Your task to perform on an android device: When is my next meeting? Image 0: 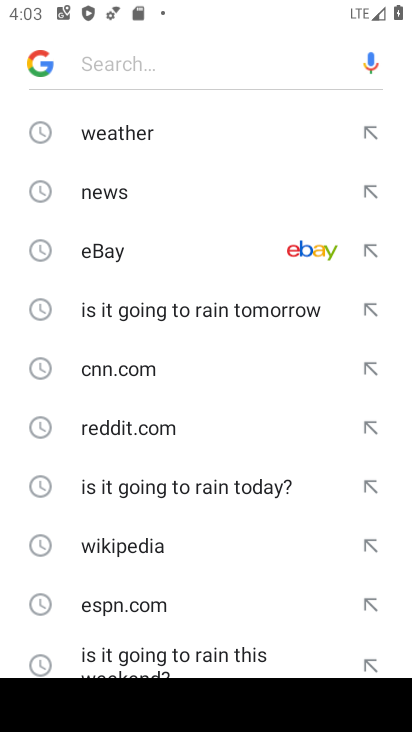
Step 0: press home button
Your task to perform on an android device: When is my next meeting? Image 1: 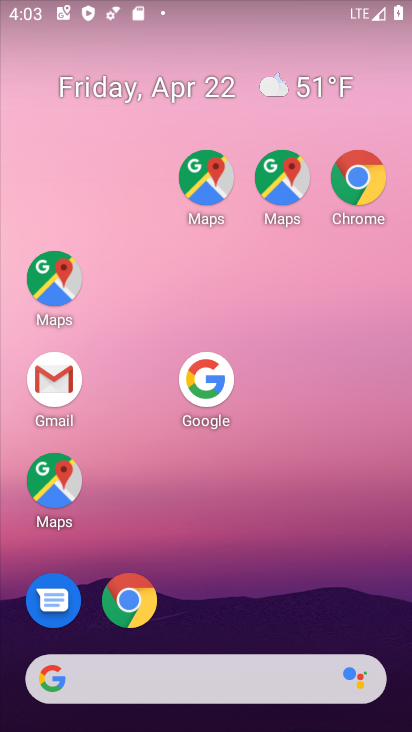
Step 1: drag from (293, 597) to (255, 112)
Your task to perform on an android device: When is my next meeting? Image 2: 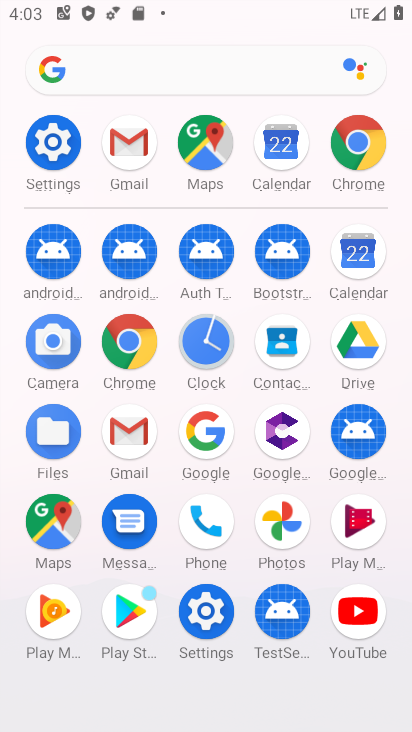
Step 2: drag from (217, 285) to (183, 45)
Your task to perform on an android device: When is my next meeting? Image 3: 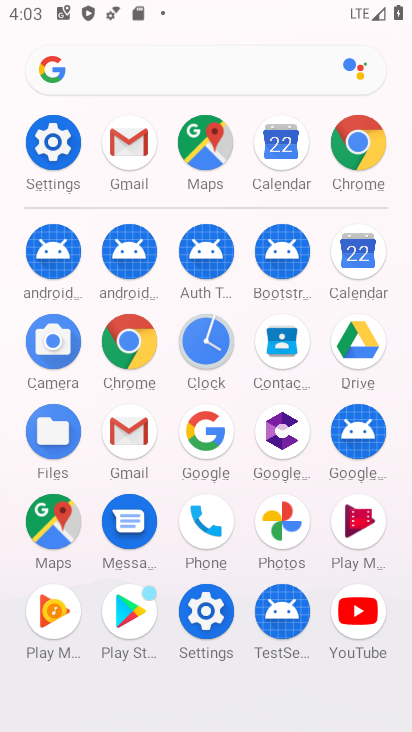
Step 3: click (350, 259)
Your task to perform on an android device: When is my next meeting? Image 4: 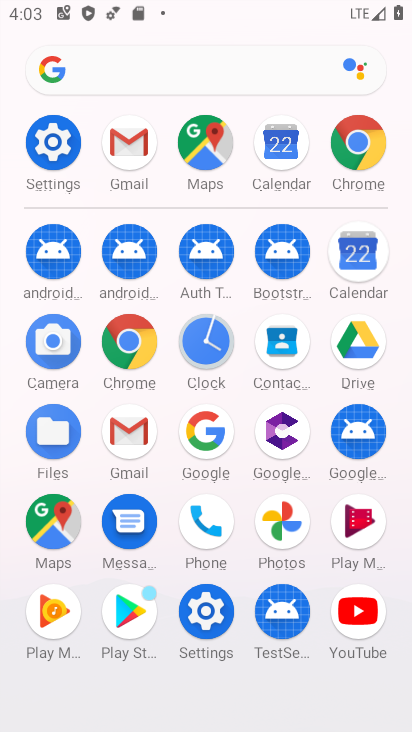
Step 4: click (350, 259)
Your task to perform on an android device: When is my next meeting? Image 5: 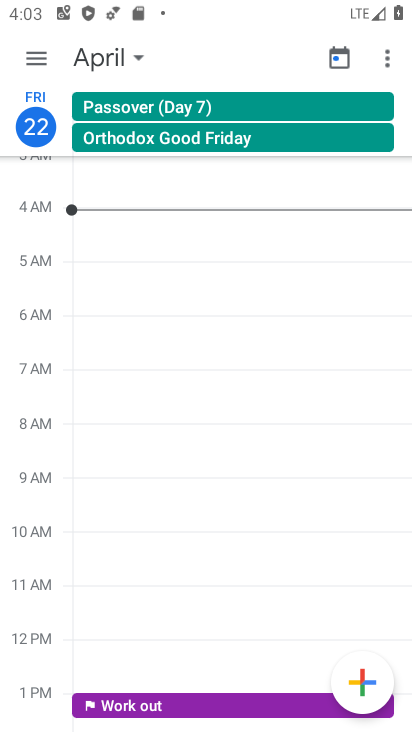
Step 5: drag from (240, 497) to (172, 14)
Your task to perform on an android device: When is my next meeting? Image 6: 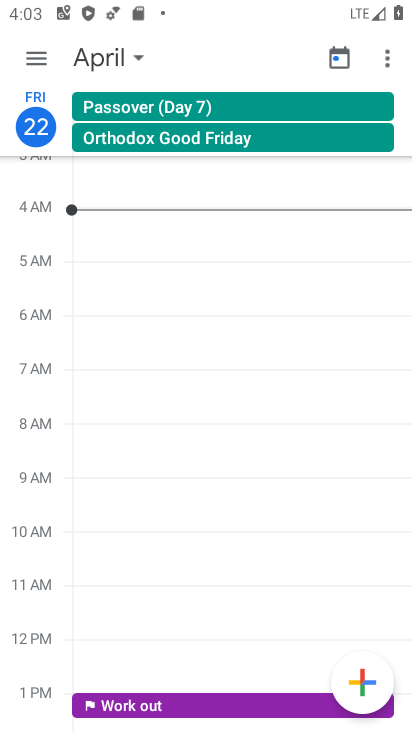
Step 6: drag from (182, 341) to (135, 36)
Your task to perform on an android device: When is my next meeting? Image 7: 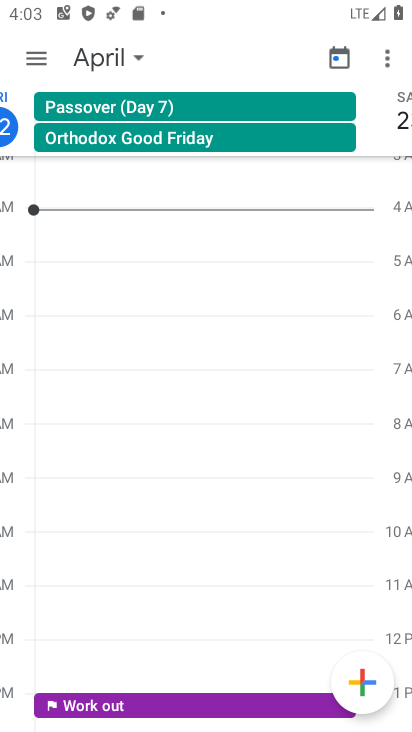
Step 7: drag from (340, 348) to (12, 370)
Your task to perform on an android device: When is my next meeting? Image 8: 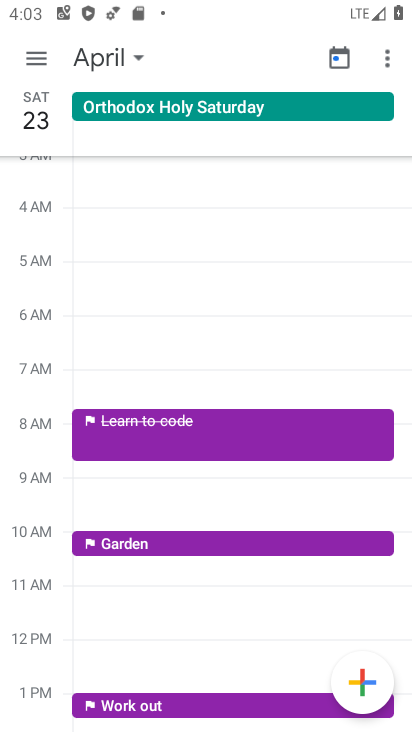
Step 8: drag from (245, 397) to (17, 400)
Your task to perform on an android device: When is my next meeting? Image 9: 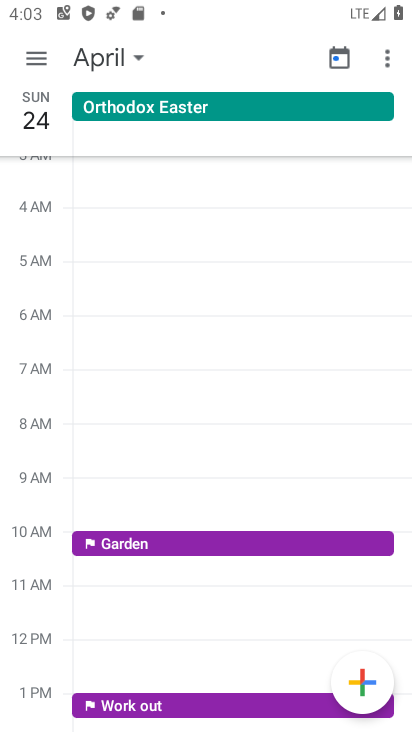
Step 9: drag from (144, 499) to (102, 3)
Your task to perform on an android device: When is my next meeting? Image 10: 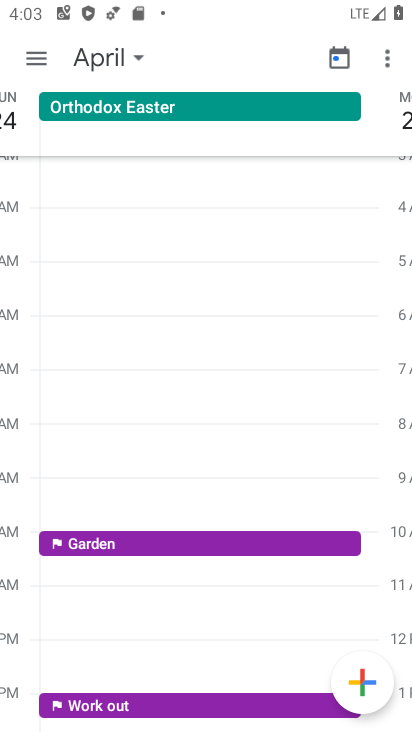
Step 10: drag from (210, 405) to (161, 79)
Your task to perform on an android device: When is my next meeting? Image 11: 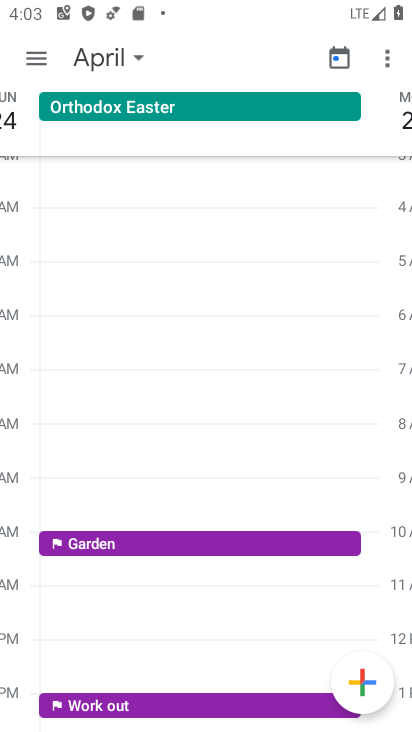
Step 11: drag from (223, 467) to (210, 80)
Your task to perform on an android device: When is my next meeting? Image 12: 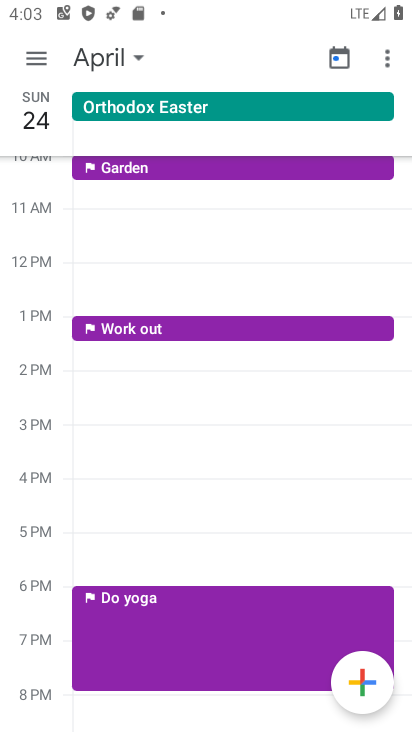
Step 12: drag from (174, 550) to (136, 85)
Your task to perform on an android device: When is my next meeting? Image 13: 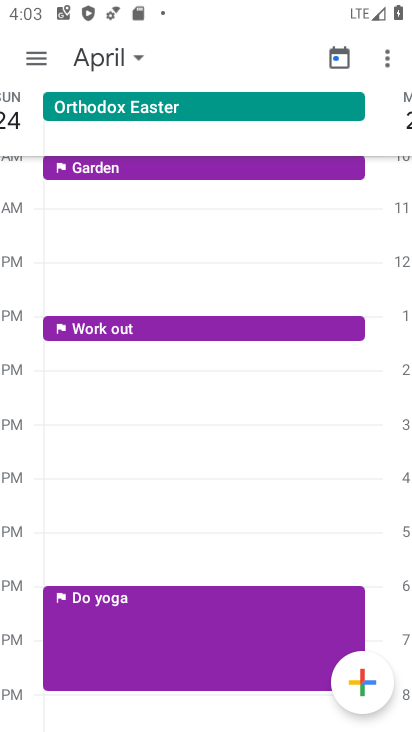
Step 13: drag from (149, 404) to (210, 28)
Your task to perform on an android device: When is my next meeting? Image 14: 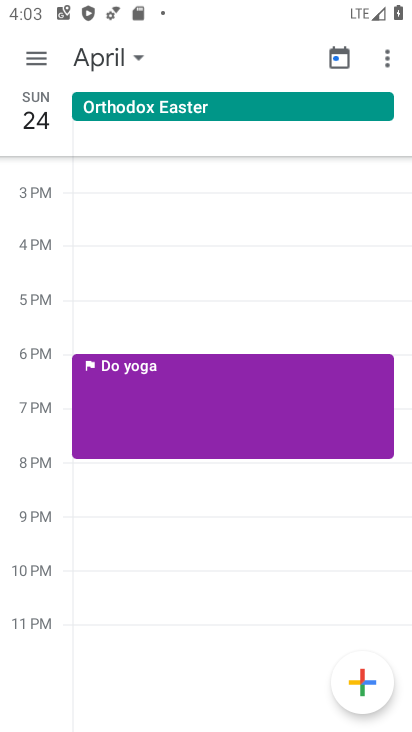
Step 14: drag from (161, 471) to (191, 57)
Your task to perform on an android device: When is my next meeting? Image 15: 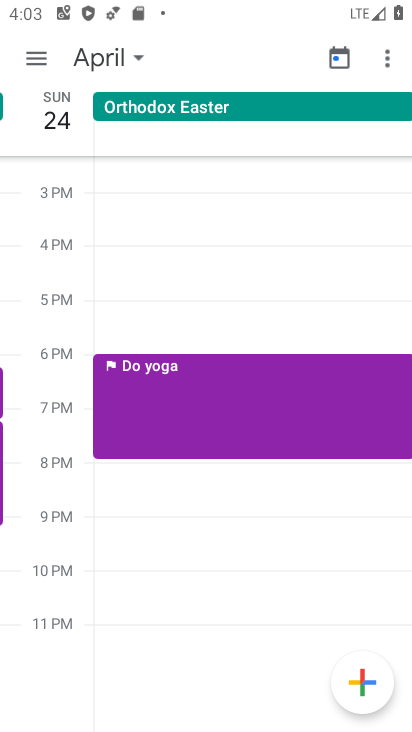
Step 15: drag from (259, 583) to (274, 148)
Your task to perform on an android device: When is my next meeting? Image 16: 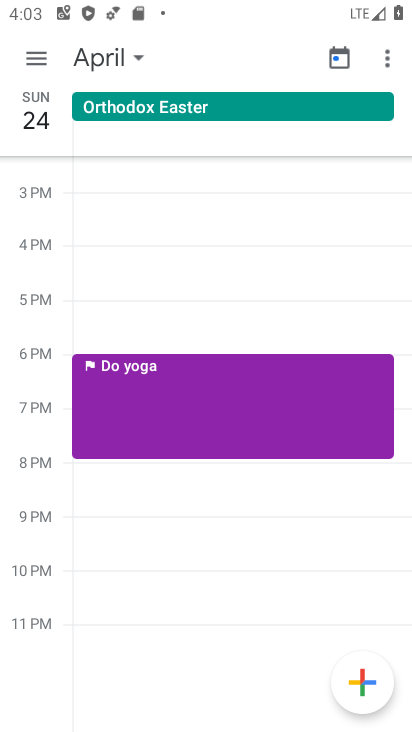
Step 16: drag from (239, 449) to (221, 70)
Your task to perform on an android device: When is my next meeting? Image 17: 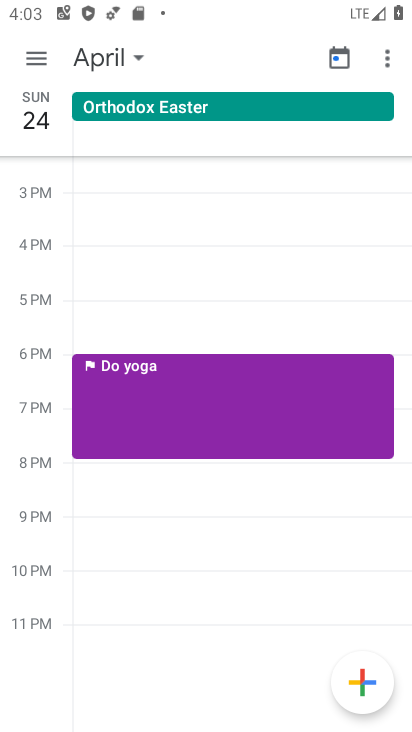
Step 17: drag from (241, 543) to (193, 81)
Your task to perform on an android device: When is my next meeting? Image 18: 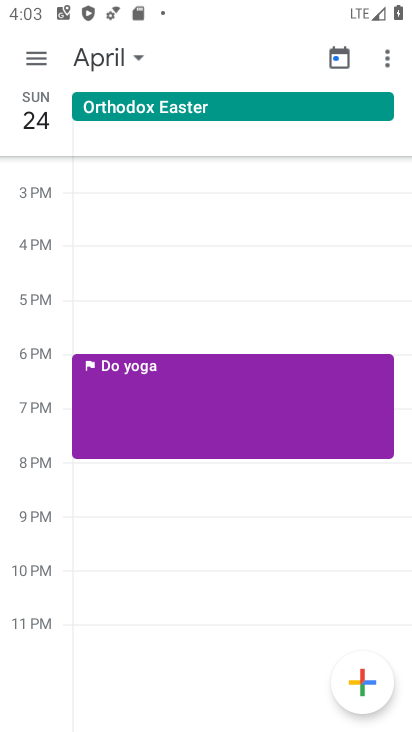
Step 18: drag from (171, 378) to (142, 60)
Your task to perform on an android device: When is my next meeting? Image 19: 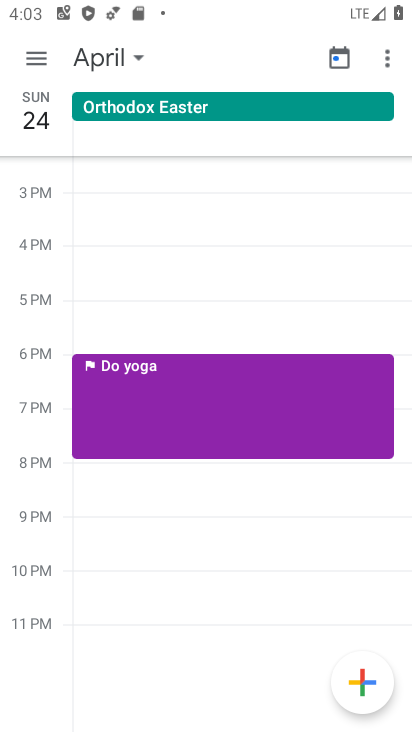
Step 19: drag from (163, 315) to (141, 61)
Your task to perform on an android device: When is my next meeting? Image 20: 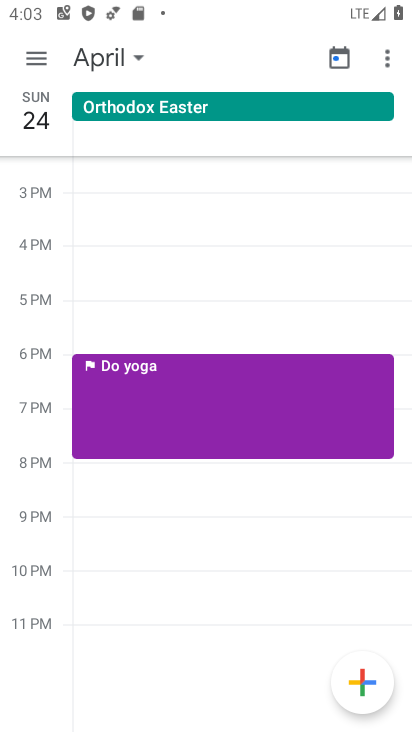
Step 20: drag from (193, 625) to (124, 131)
Your task to perform on an android device: When is my next meeting? Image 21: 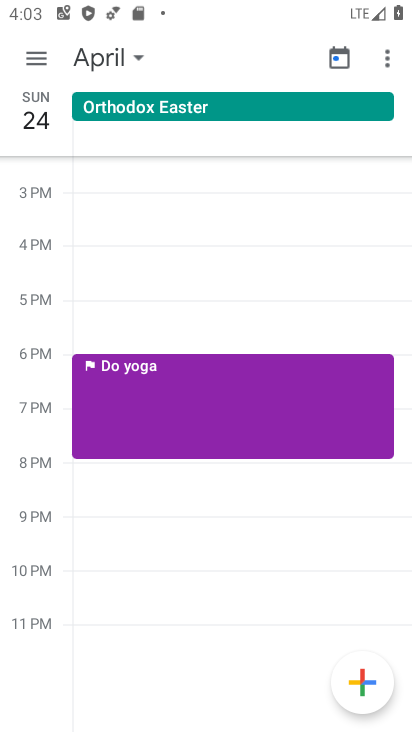
Step 21: drag from (189, 580) to (149, 71)
Your task to perform on an android device: When is my next meeting? Image 22: 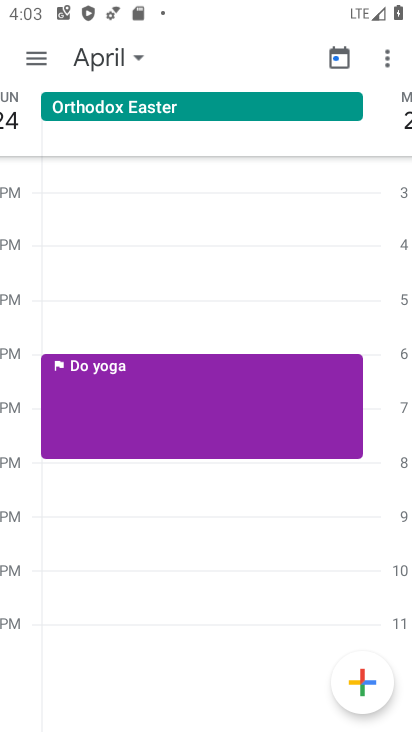
Step 22: drag from (170, 524) to (118, 3)
Your task to perform on an android device: When is my next meeting? Image 23: 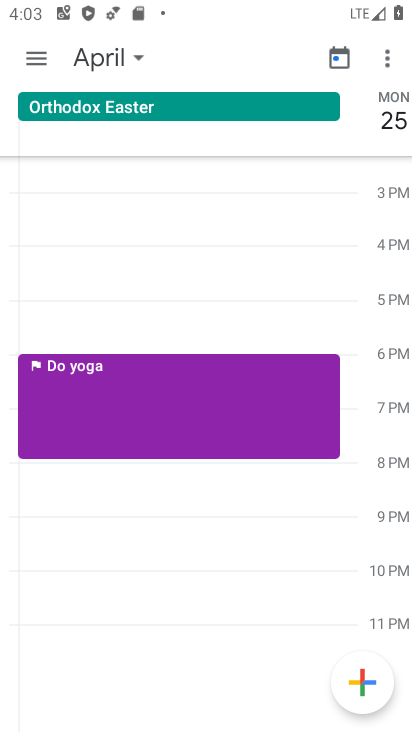
Step 23: drag from (157, 314) to (126, 31)
Your task to perform on an android device: When is my next meeting? Image 24: 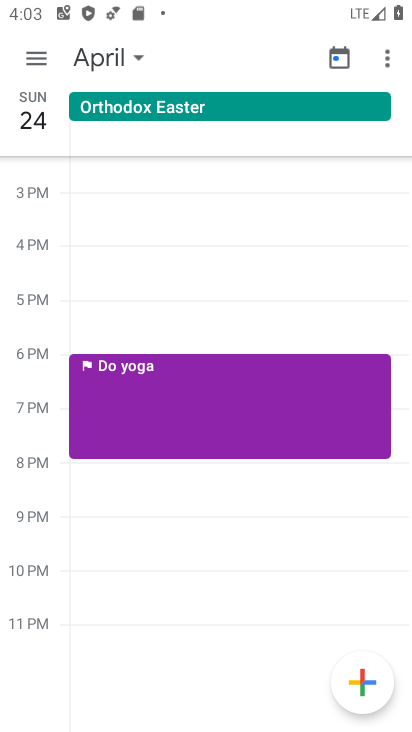
Step 24: drag from (178, 570) to (89, 104)
Your task to perform on an android device: When is my next meeting? Image 25: 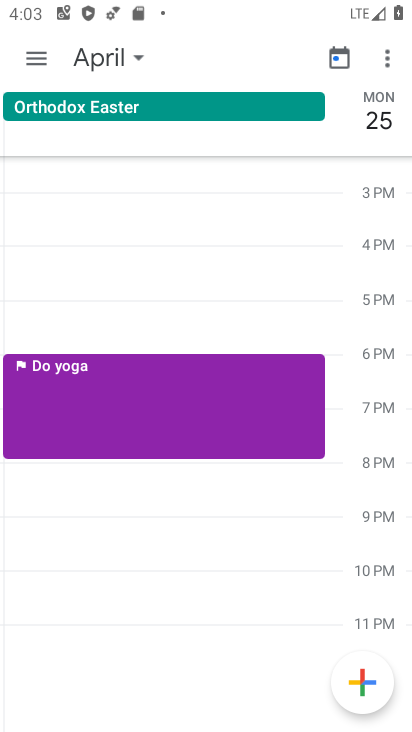
Step 25: drag from (138, 403) to (89, 11)
Your task to perform on an android device: When is my next meeting? Image 26: 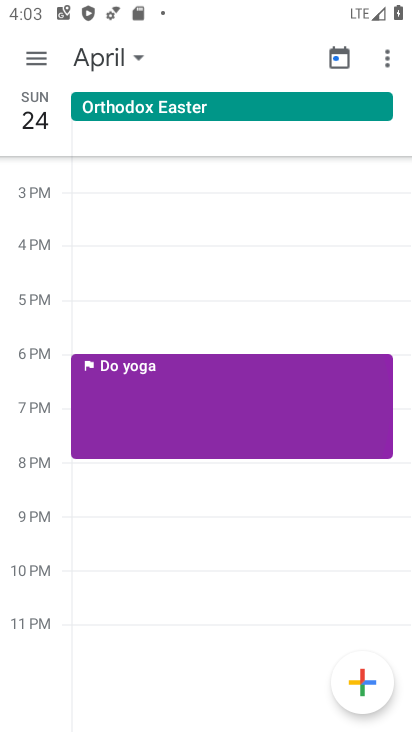
Step 26: drag from (180, 400) to (112, 65)
Your task to perform on an android device: When is my next meeting? Image 27: 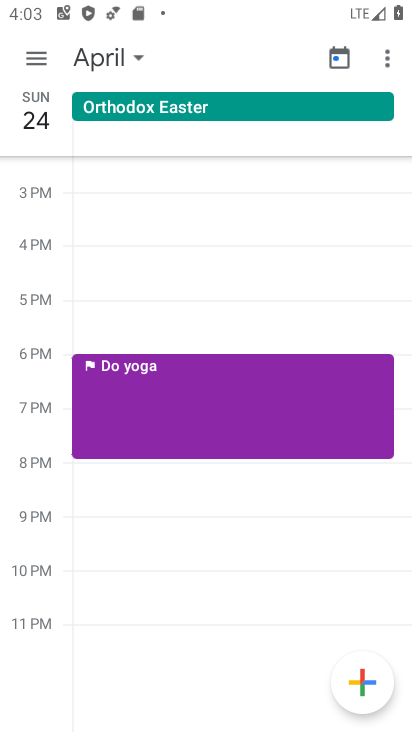
Step 27: drag from (141, 275) to (141, 119)
Your task to perform on an android device: When is my next meeting? Image 28: 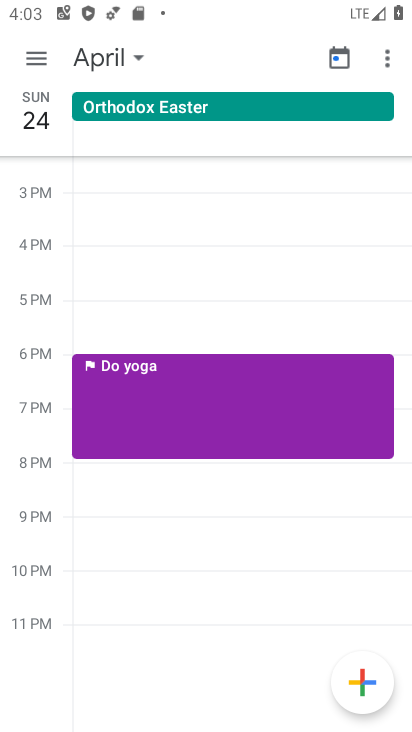
Step 28: drag from (116, 197) to (133, 455)
Your task to perform on an android device: When is my next meeting? Image 29: 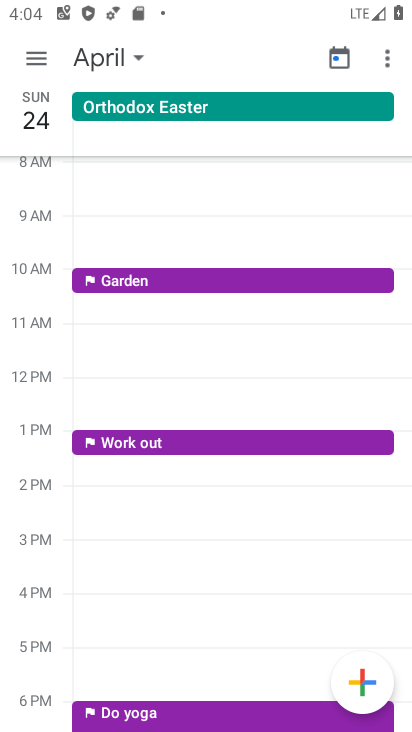
Step 29: click (40, 58)
Your task to perform on an android device: When is my next meeting? Image 30: 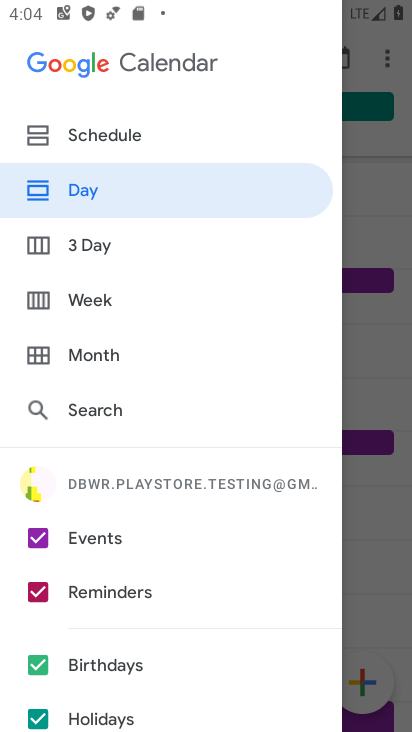
Step 30: drag from (165, 580) to (169, 171)
Your task to perform on an android device: When is my next meeting? Image 31: 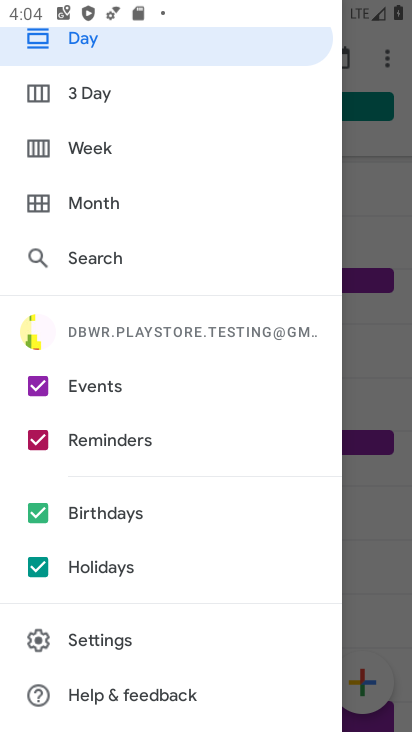
Step 31: click (383, 350)
Your task to perform on an android device: When is my next meeting? Image 32: 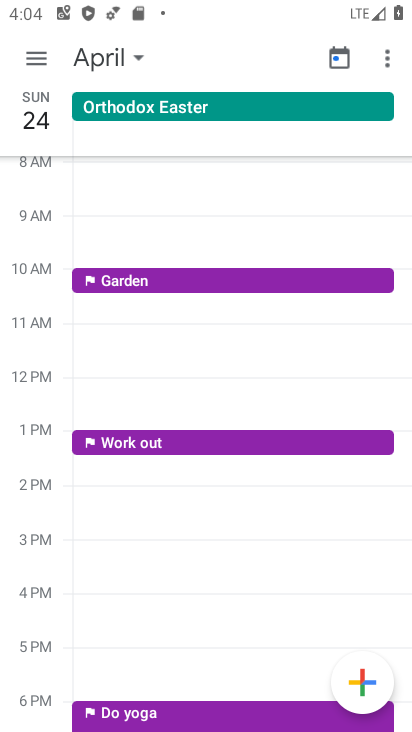
Step 32: click (386, 66)
Your task to perform on an android device: When is my next meeting? Image 33: 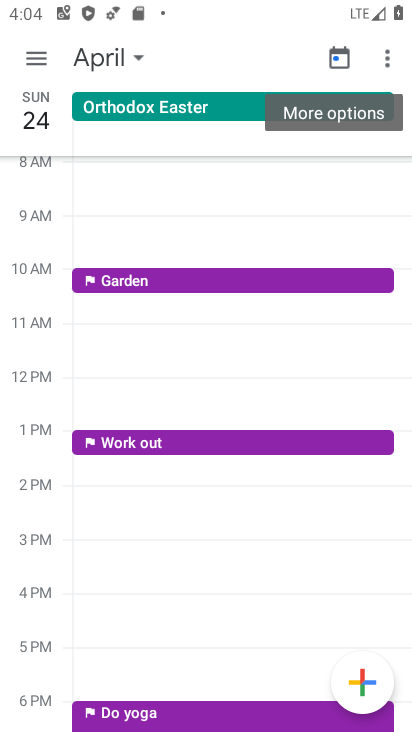
Step 33: click (386, 66)
Your task to perform on an android device: When is my next meeting? Image 34: 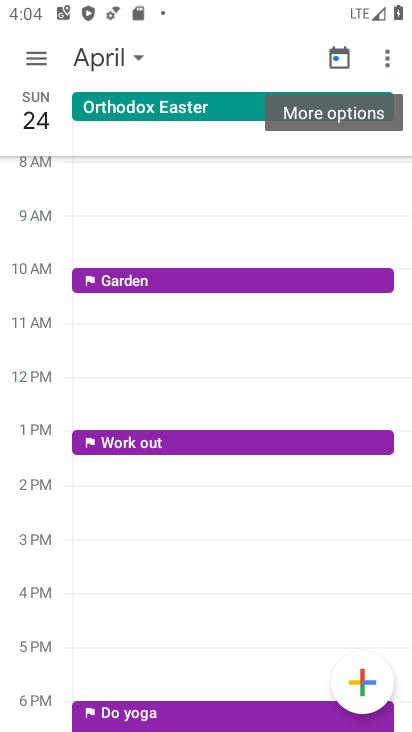
Step 34: click (386, 66)
Your task to perform on an android device: When is my next meeting? Image 35: 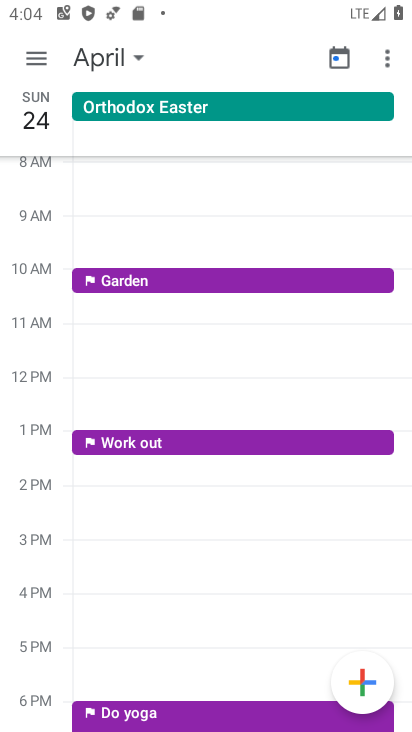
Step 35: click (386, 66)
Your task to perform on an android device: When is my next meeting? Image 36: 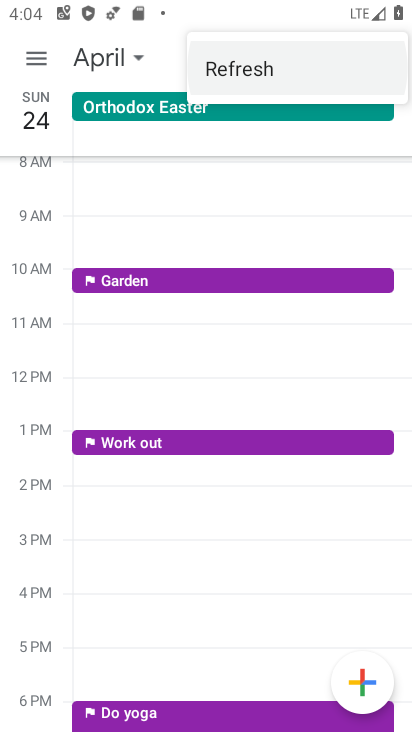
Step 36: click (386, 66)
Your task to perform on an android device: When is my next meeting? Image 37: 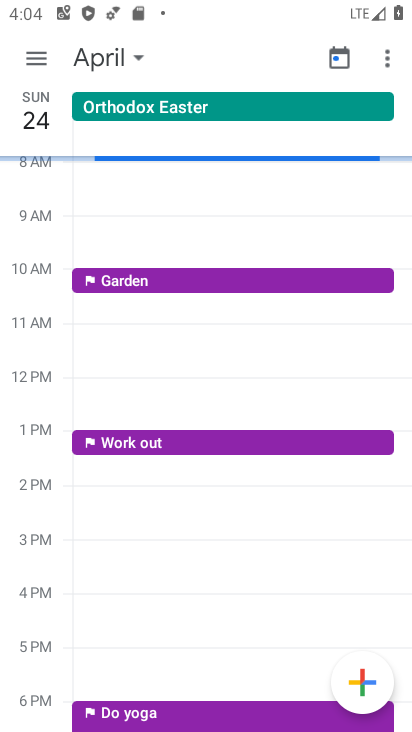
Step 37: click (340, 68)
Your task to perform on an android device: When is my next meeting? Image 38: 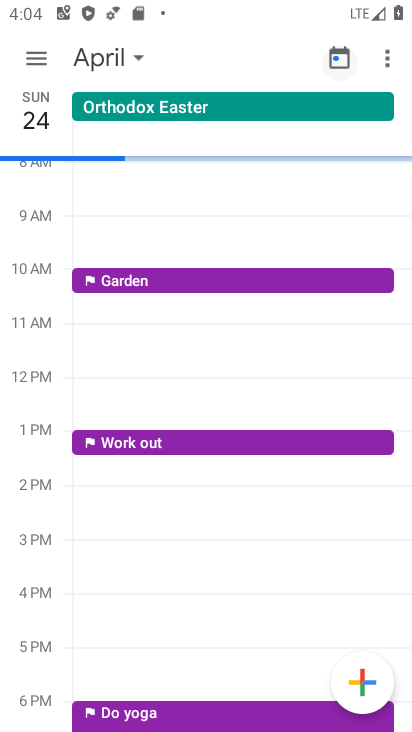
Step 38: click (339, 69)
Your task to perform on an android device: When is my next meeting? Image 39: 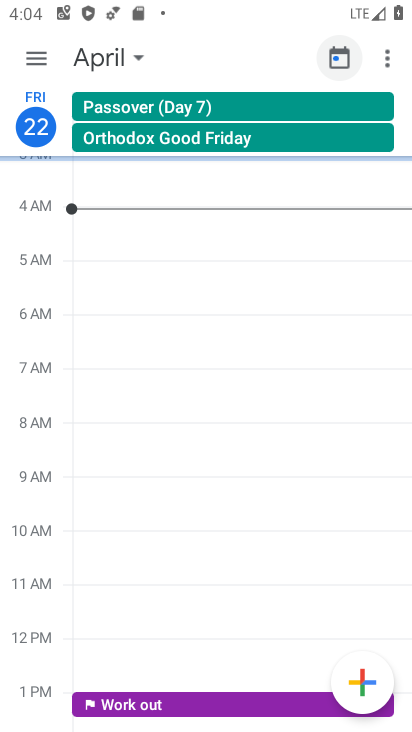
Step 39: click (339, 70)
Your task to perform on an android device: When is my next meeting? Image 40: 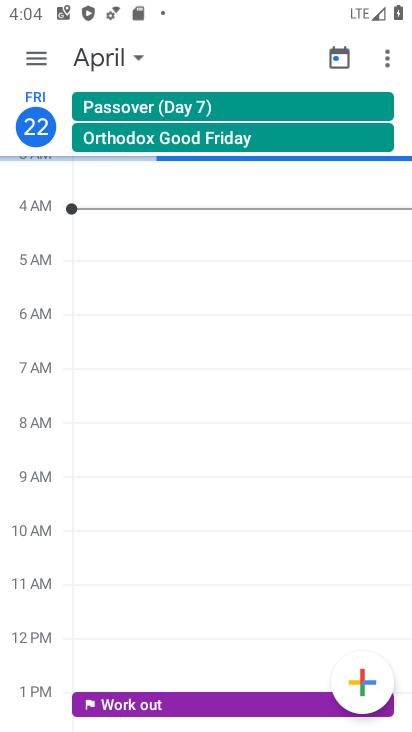
Step 40: click (339, 71)
Your task to perform on an android device: When is my next meeting? Image 41: 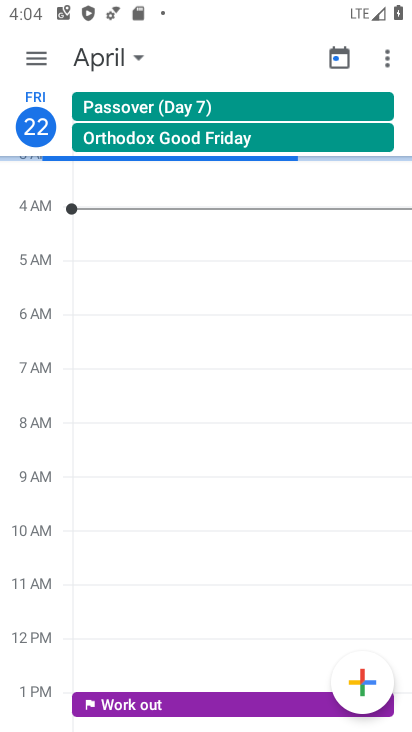
Step 41: click (338, 60)
Your task to perform on an android device: When is my next meeting? Image 42: 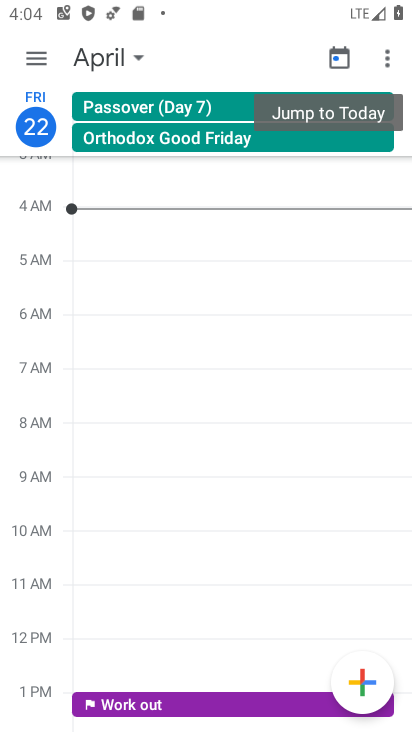
Step 42: click (42, 46)
Your task to perform on an android device: When is my next meeting? Image 43: 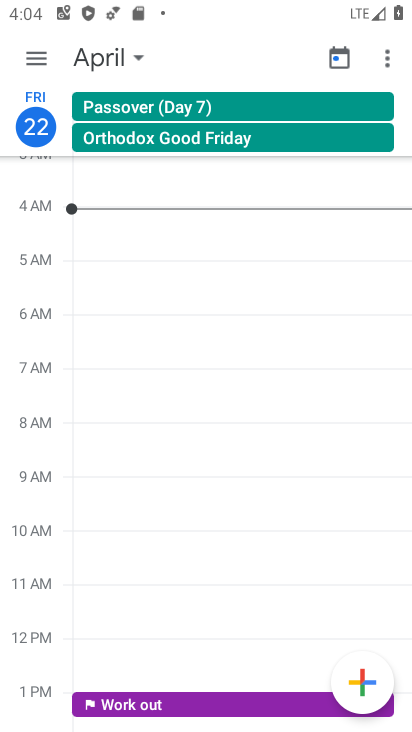
Step 43: click (46, 46)
Your task to perform on an android device: When is my next meeting? Image 44: 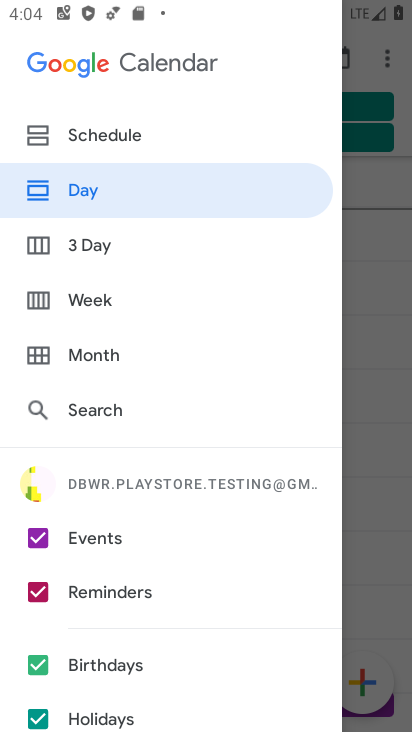
Step 44: click (94, 142)
Your task to perform on an android device: When is my next meeting? Image 45: 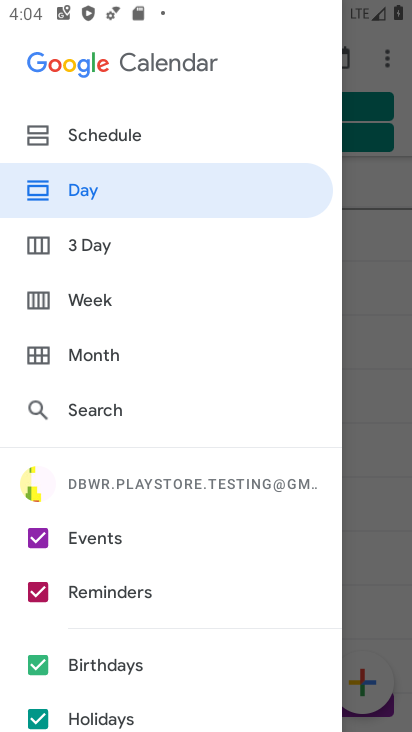
Step 45: click (94, 135)
Your task to perform on an android device: When is my next meeting? Image 46: 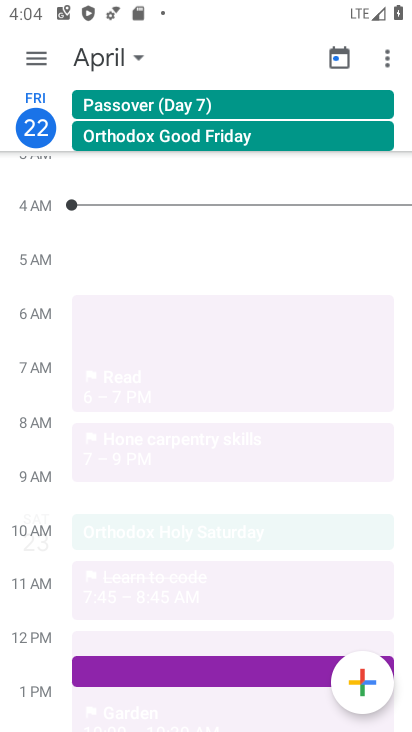
Step 46: click (95, 132)
Your task to perform on an android device: When is my next meeting? Image 47: 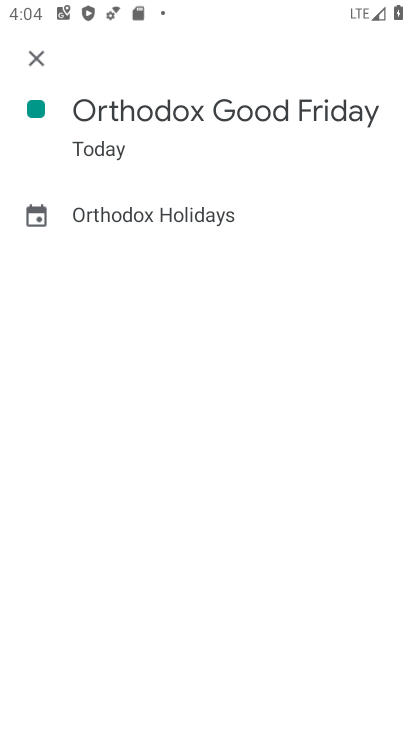
Step 47: click (31, 58)
Your task to perform on an android device: When is my next meeting? Image 48: 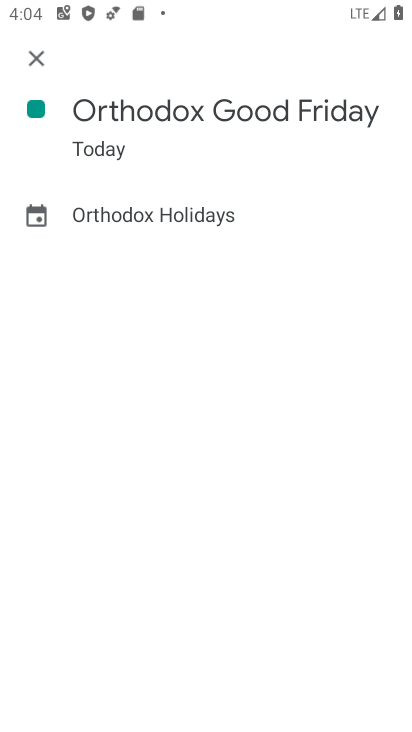
Step 48: click (33, 58)
Your task to perform on an android device: When is my next meeting? Image 49: 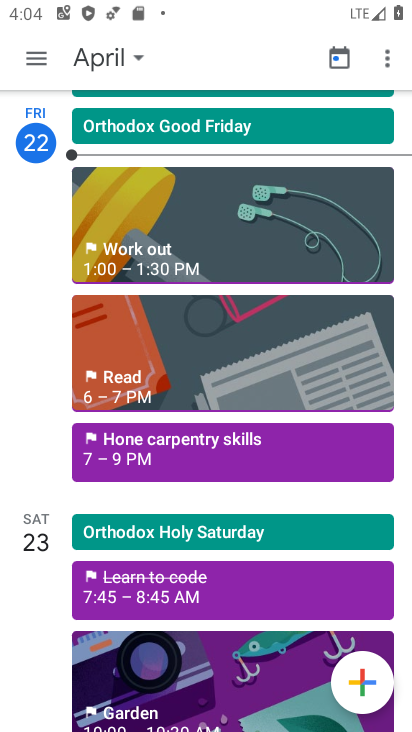
Step 49: click (42, 58)
Your task to perform on an android device: When is my next meeting? Image 50: 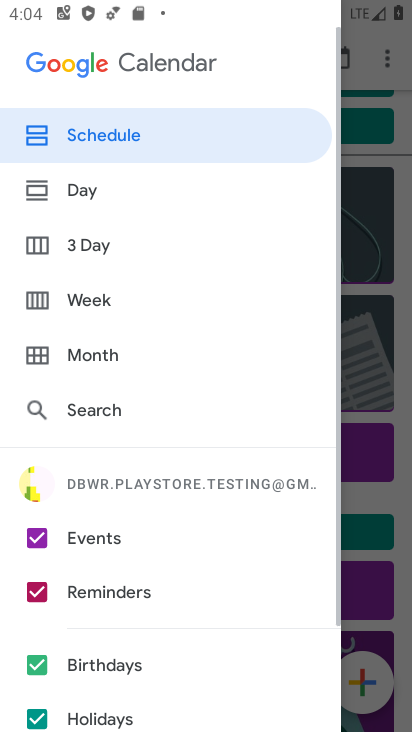
Step 50: click (38, 64)
Your task to perform on an android device: When is my next meeting? Image 51: 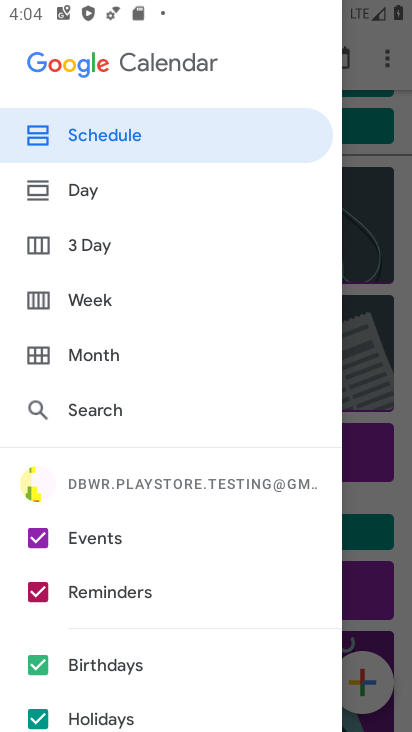
Step 51: click (91, 131)
Your task to perform on an android device: When is my next meeting? Image 52: 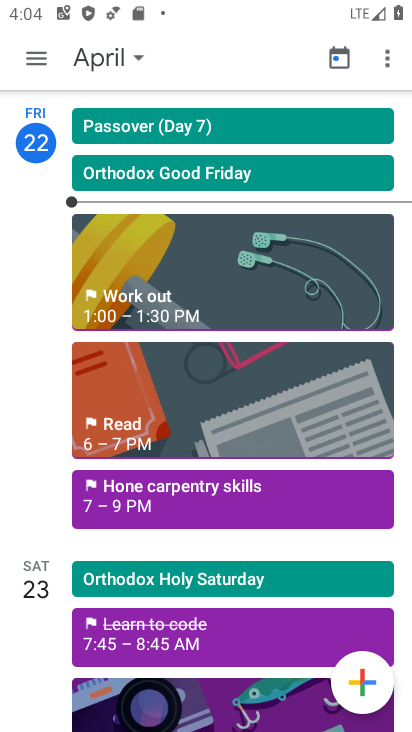
Step 52: task complete